Your task to perform on an android device: Go to eBay Image 0: 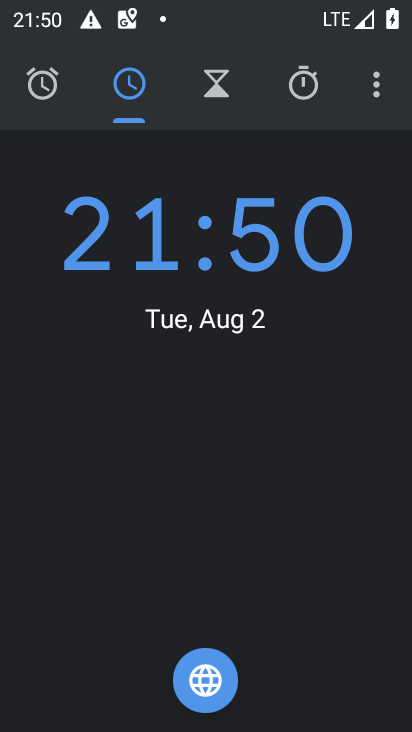
Step 0: press back button
Your task to perform on an android device: Go to eBay Image 1: 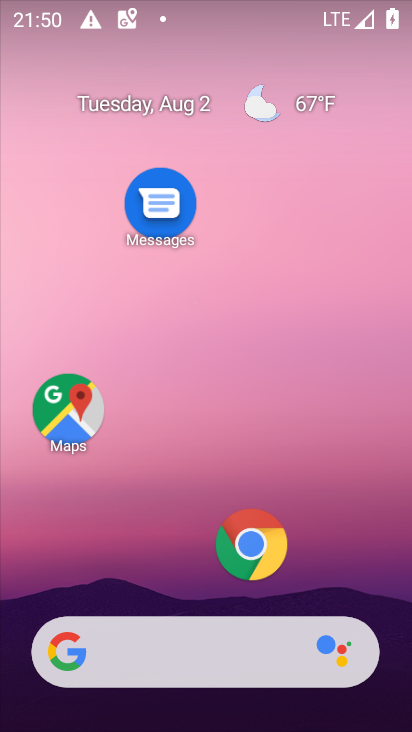
Step 1: click (237, 534)
Your task to perform on an android device: Go to eBay Image 2: 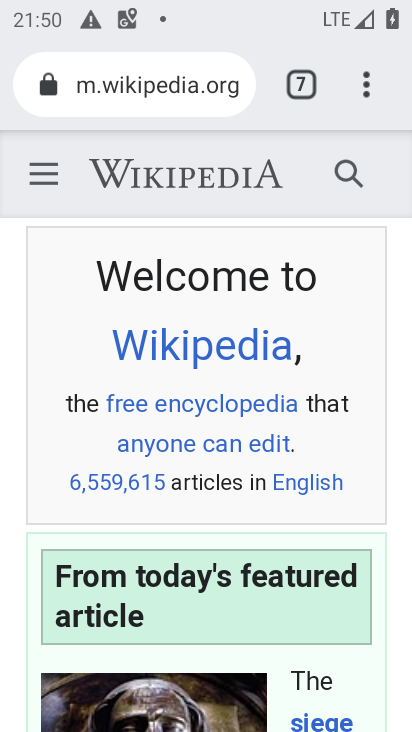
Step 2: click (311, 94)
Your task to perform on an android device: Go to eBay Image 3: 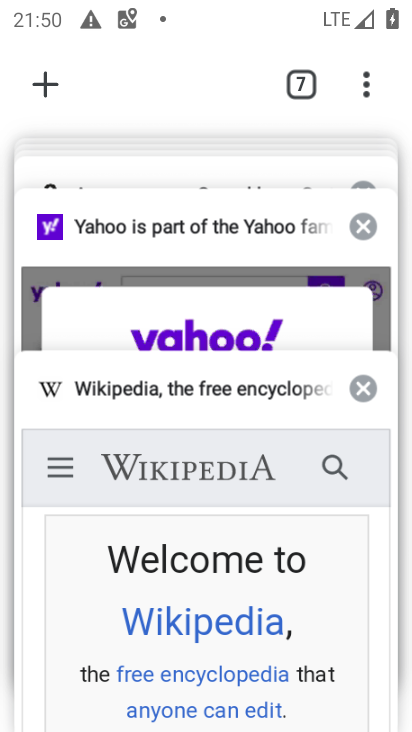
Step 3: click (54, 78)
Your task to perform on an android device: Go to eBay Image 4: 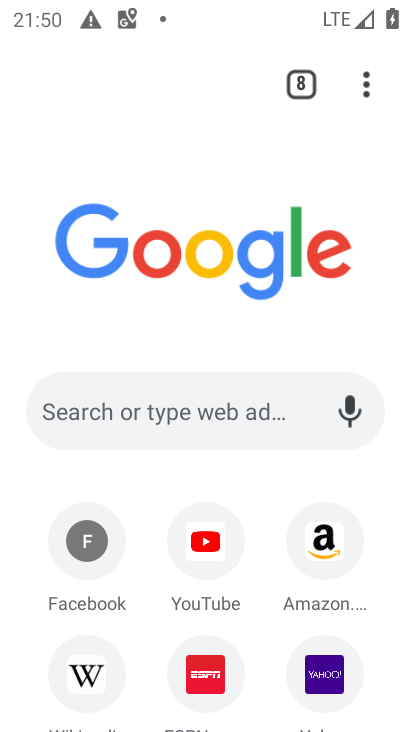
Step 4: drag from (225, 608) to (237, 359)
Your task to perform on an android device: Go to eBay Image 5: 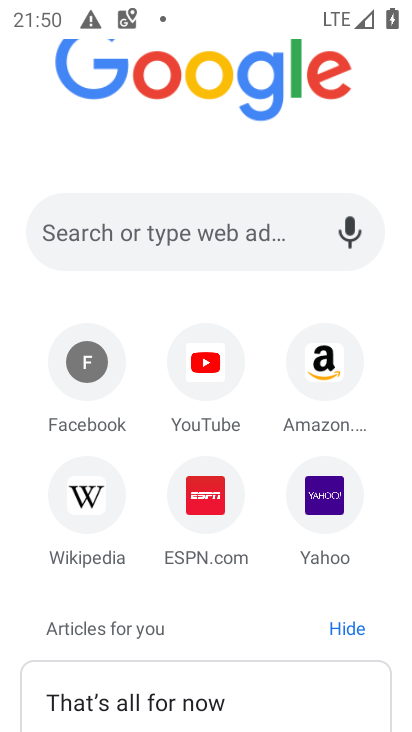
Step 5: click (152, 239)
Your task to perform on an android device: Go to eBay Image 6: 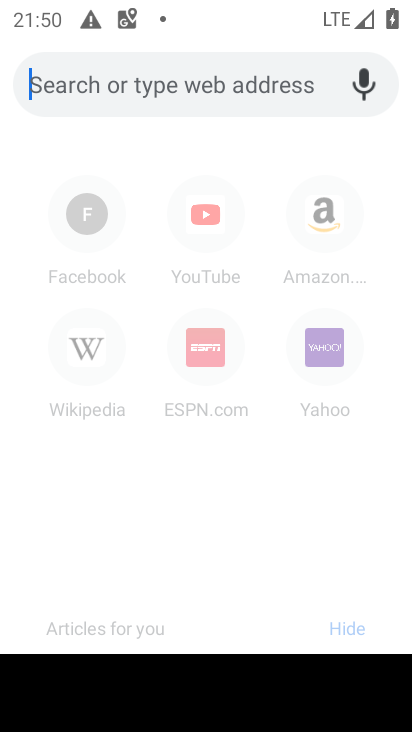
Step 6: type "eBay"
Your task to perform on an android device: Go to eBay Image 7: 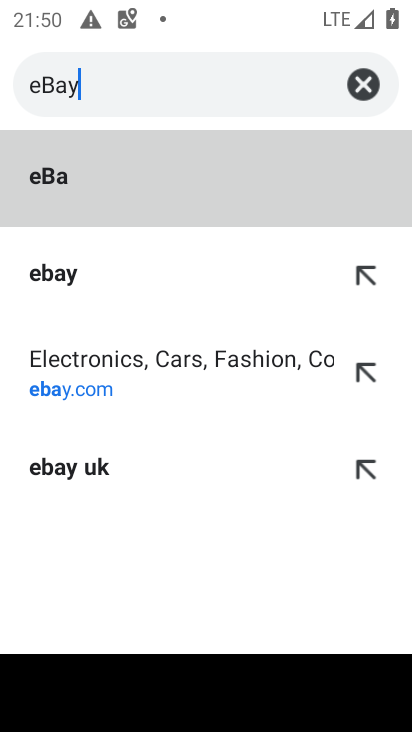
Step 7: type ""
Your task to perform on an android device: Go to eBay Image 8: 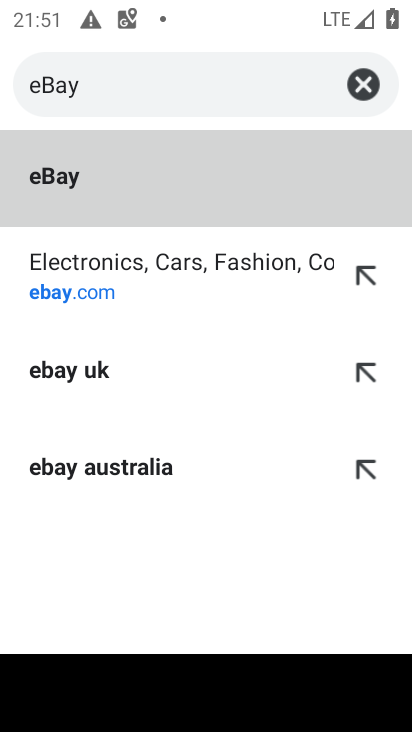
Step 8: click (285, 183)
Your task to perform on an android device: Go to eBay Image 9: 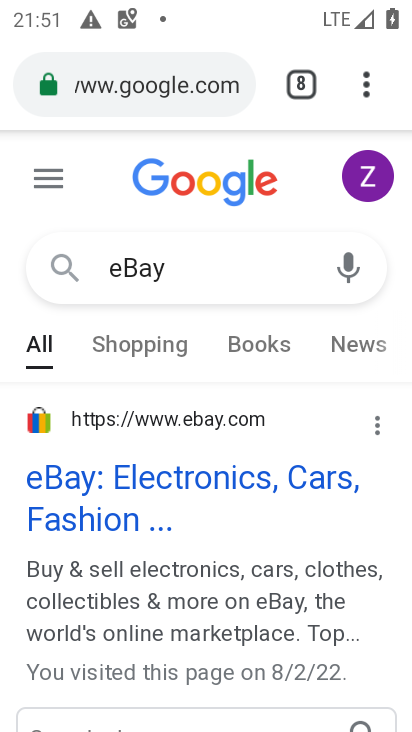
Step 9: click (180, 478)
Your task to perform on an android device: Go to eBay Image 10: 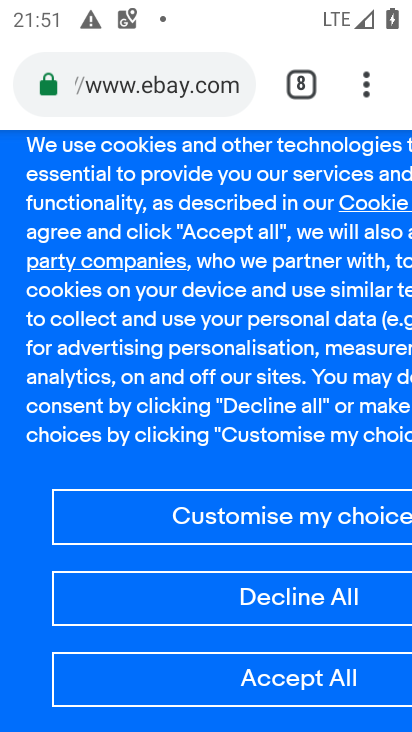
Step 10: task complete